Your task to perform on an android device: Search for Mexican restaurants on Maps Image 0: 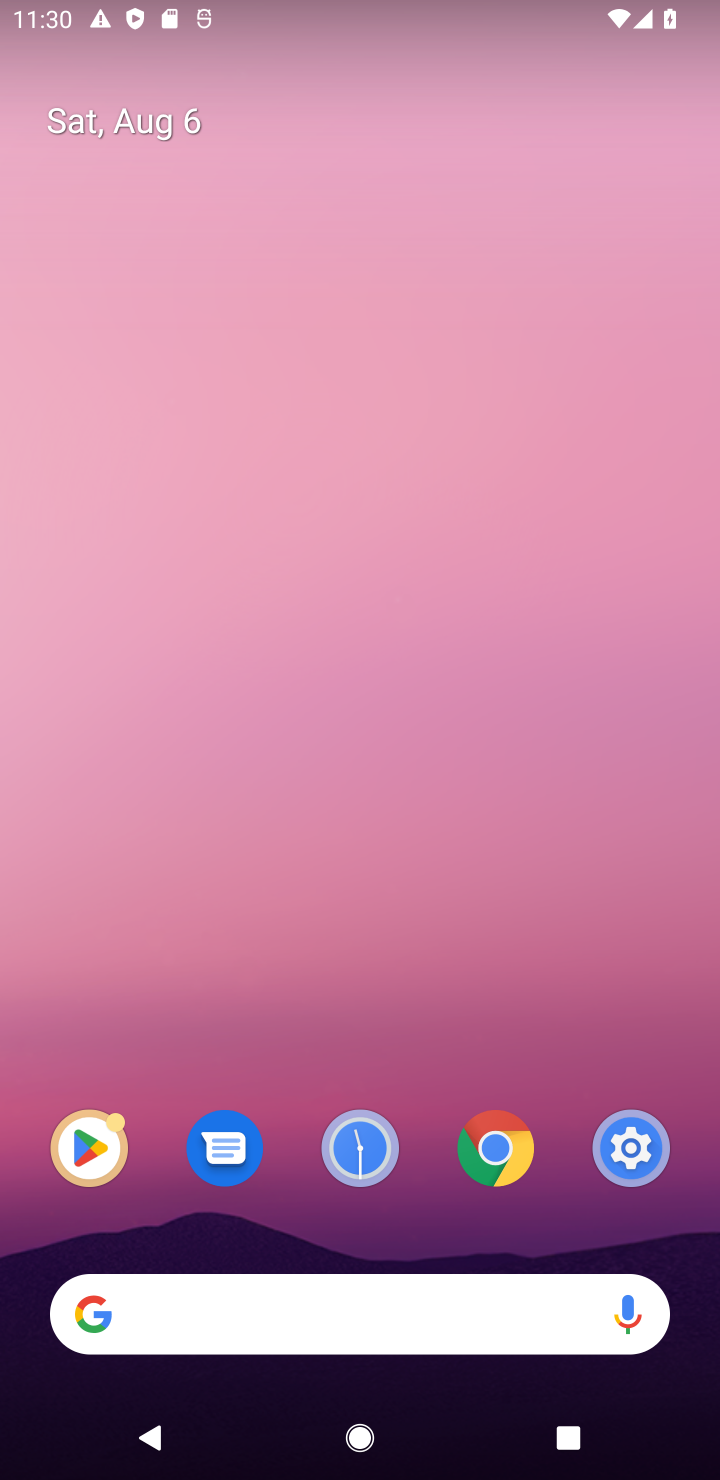
Step 0: drag from (308, 1049) to (243, 226)
Your task to perform on an android device: Search for Mexican restaurants on Maps Image 1: 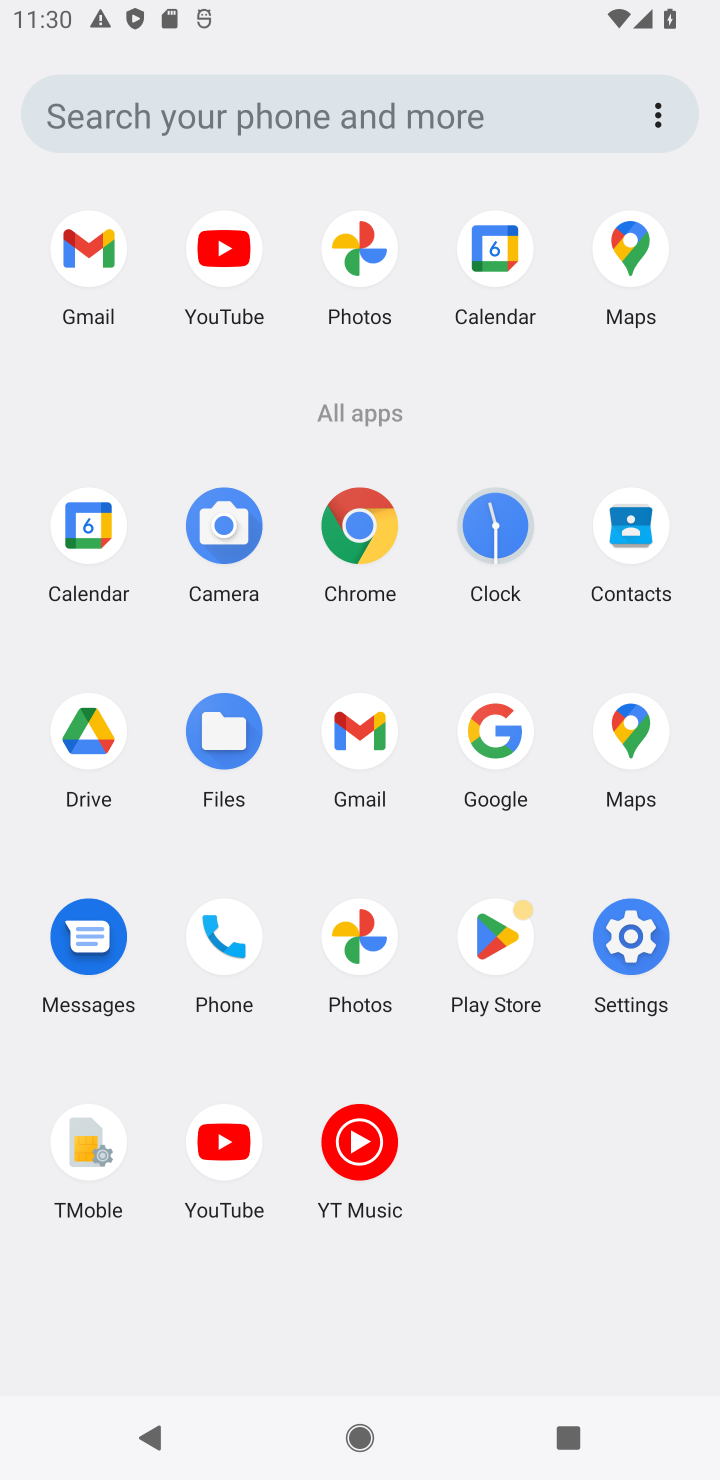
Step 1: click (630, 714)
Your task to perform on an android device: Search for Mexican restaurants on Maps Image 2: 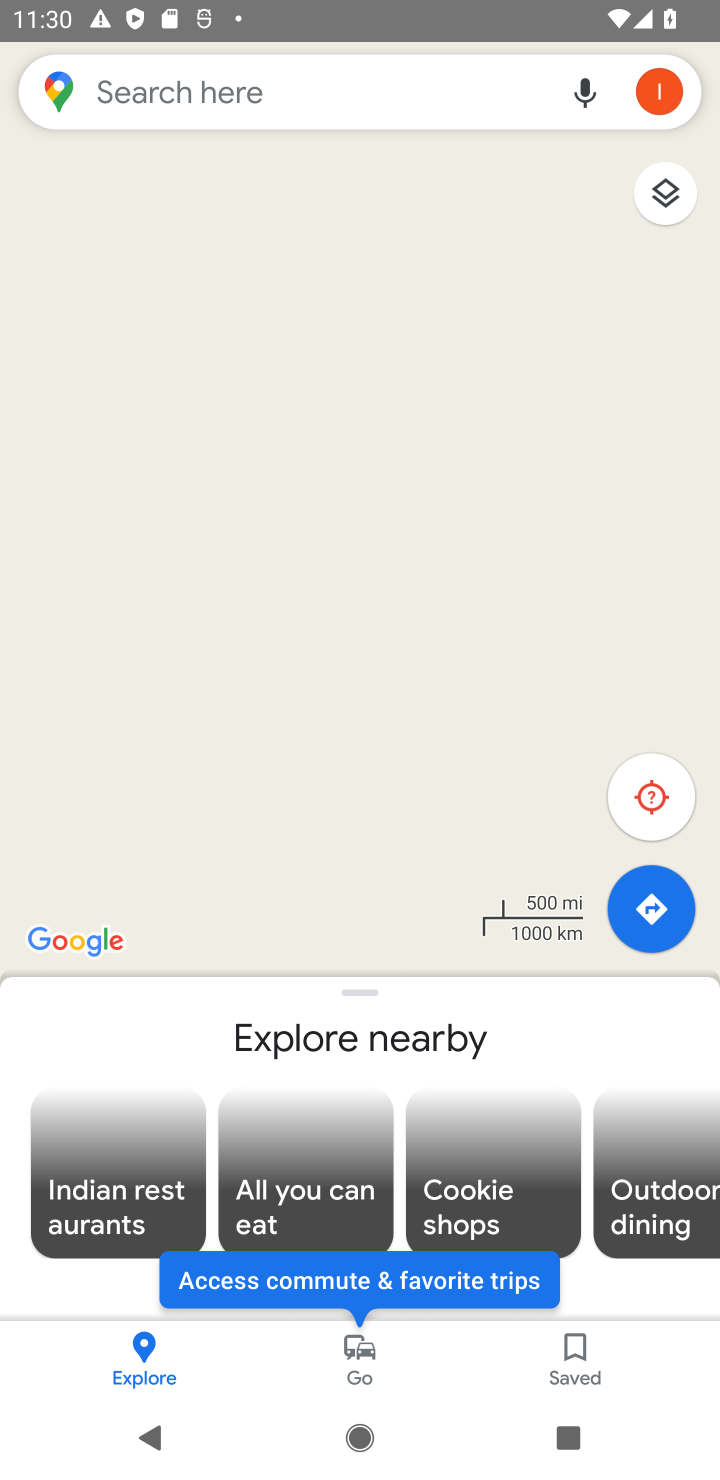
Step 2: click (240, 82)
Your task to perform on an android device: Search for Mexican restaurants on Maps Image 3: 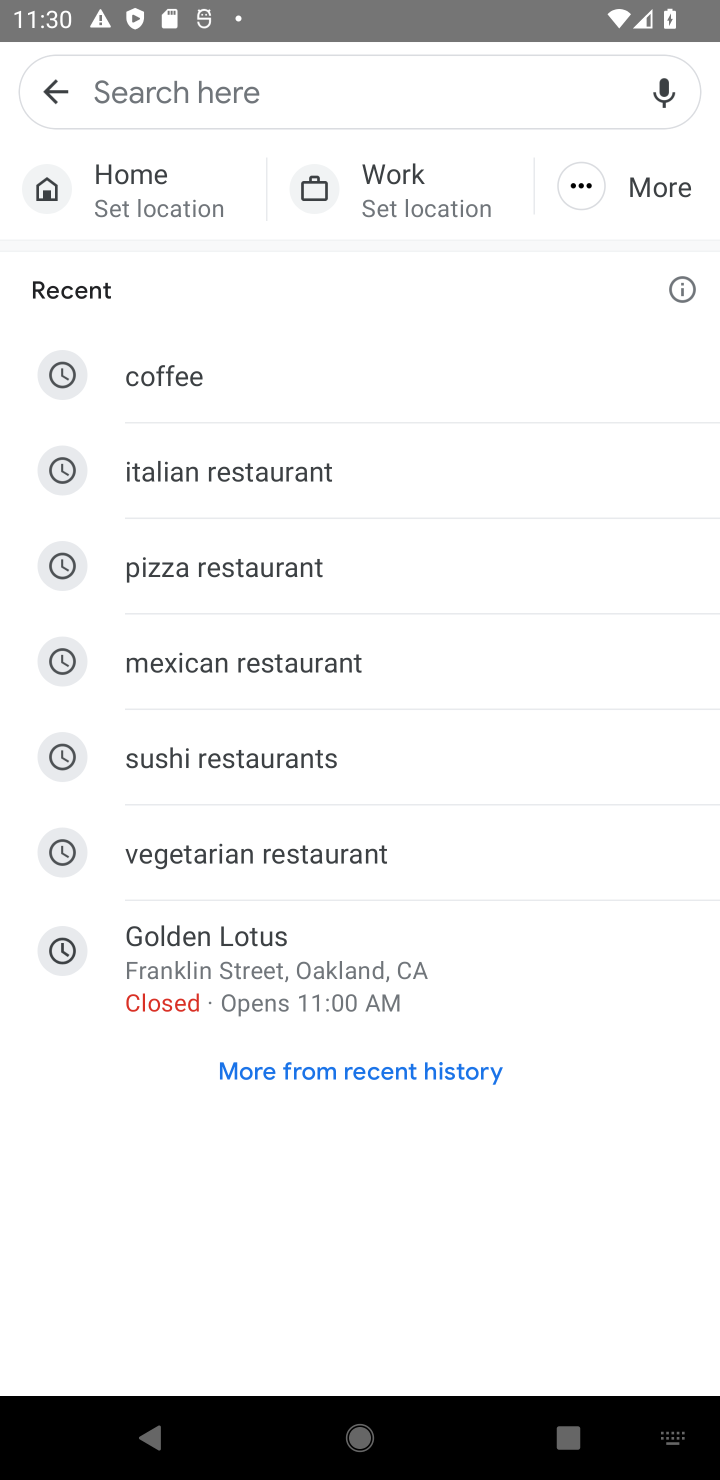
Step 3: click (257, 661)
Your task to perform on an android device: Search for Mexican restaurants on Maps Image 4: 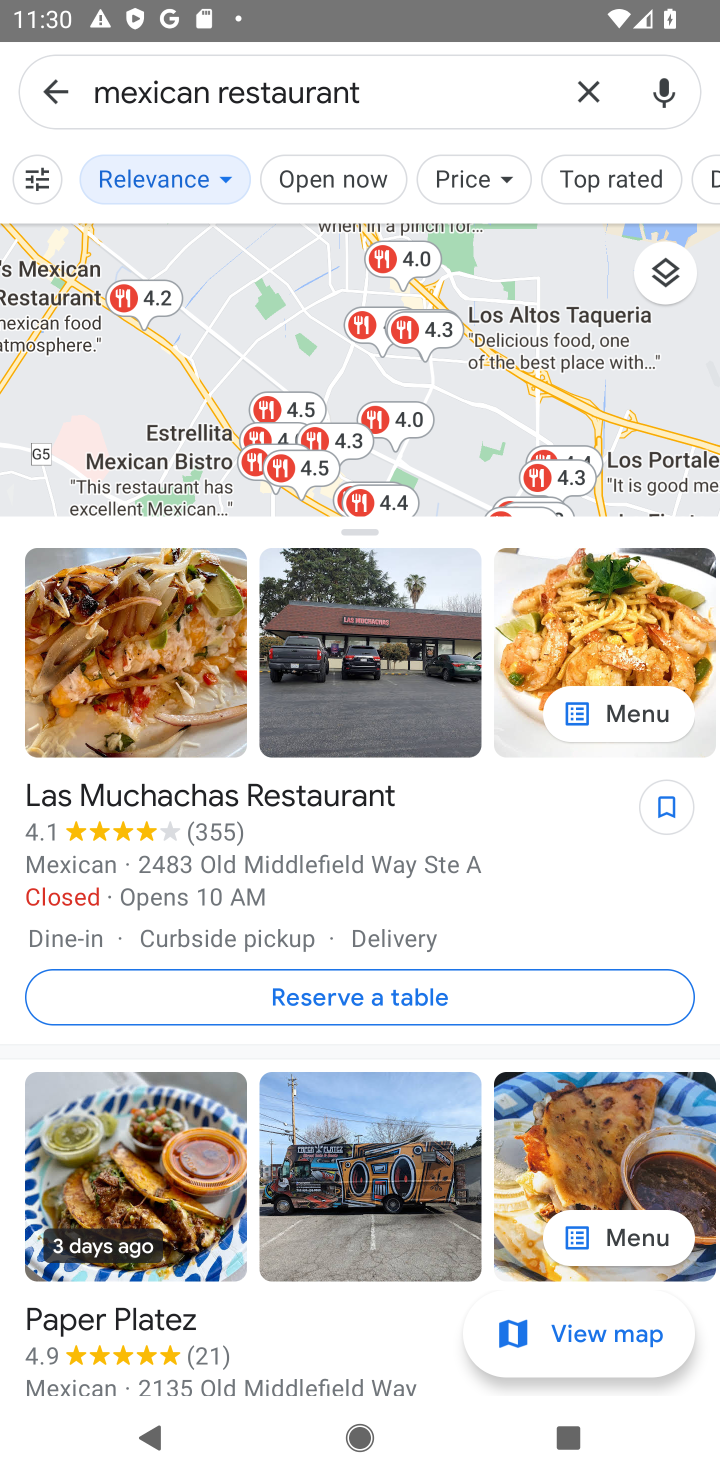
Step 4: task complete